Your task to perform on an android device: Open the calendar and show me this week's events? Image 0: 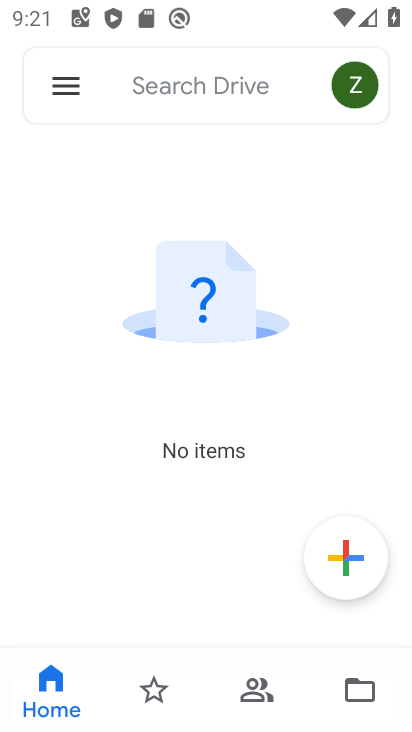
Step 0: press back button
Your task to perform on an android device: Open the calendar and show me this week's events? Image 1: 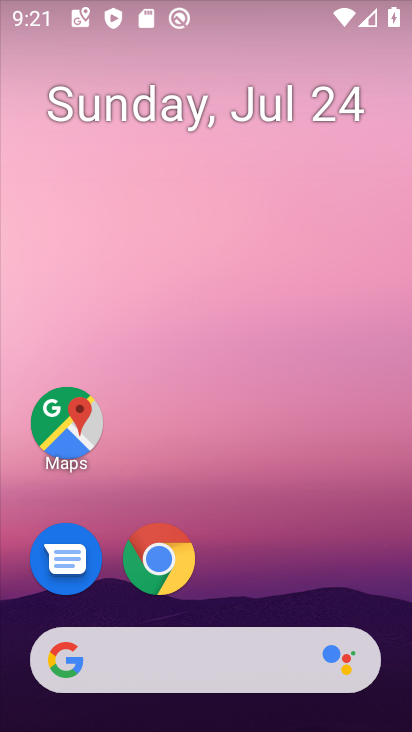
Step 1: drag from (216, 551) to (221, 40)
Your task to perform on an android device: Open the calendar and show me this week's events? Image 2: 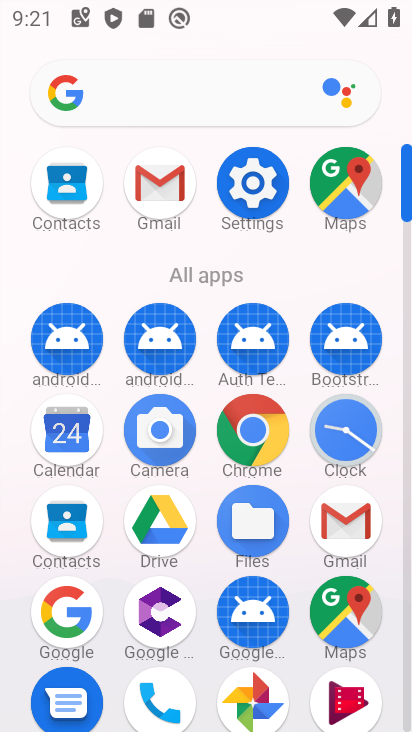
Step 2: click (61, 495)
Your task to perform on an android device: Open the calendar and show me this week's events? Image 3: 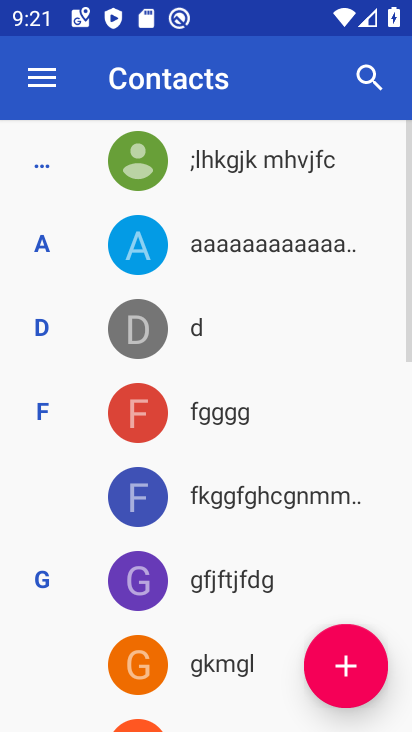
Step 3: press back button
Your task to perform on an android device: Open the calendar and show me this week's events? Image 4: 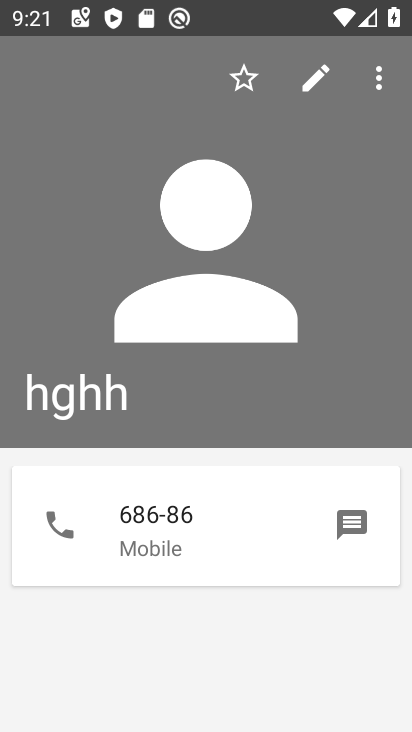
Step 4: press back button
Your task to perform on an android device: Open the calendar and show me this week's events? Image 5: 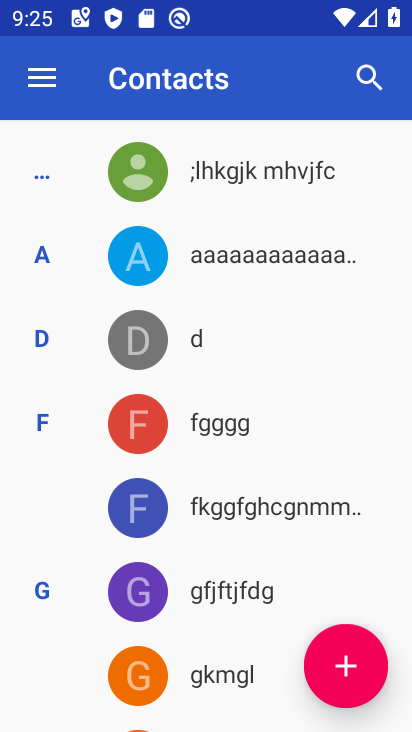
Step 5: press back button
Your task to perform on an android device: Open the calendar and show me this week's events? Image 6: 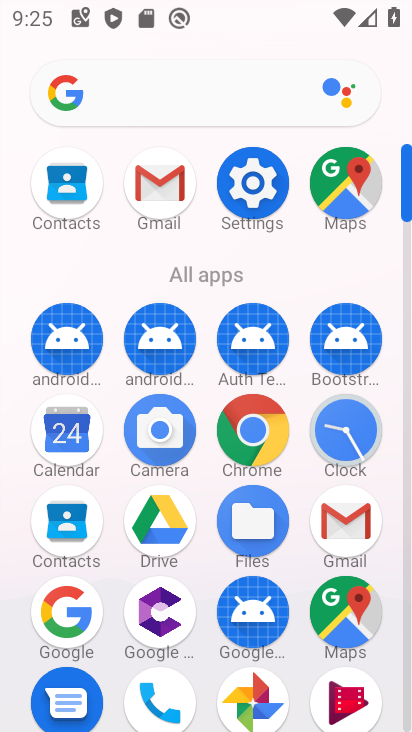
Step 6: click (58, 451)
Your task to perform on an android device: Open the calendar and show me this week's events? Image 7: 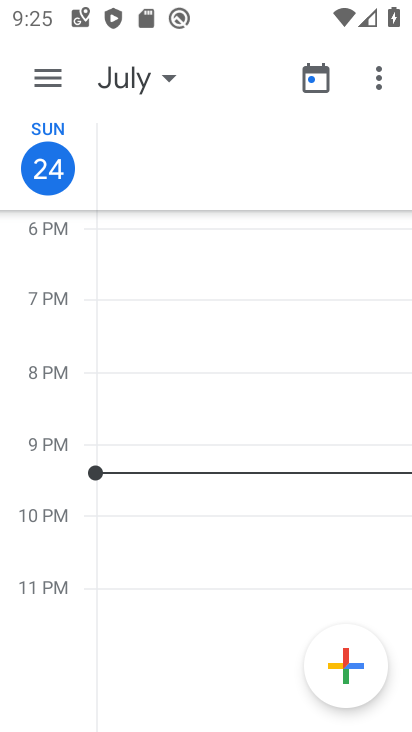
Step 7: click (37, 63)
Your task to perform on an android device: Open the calendar and show me this week's events? Image 8: 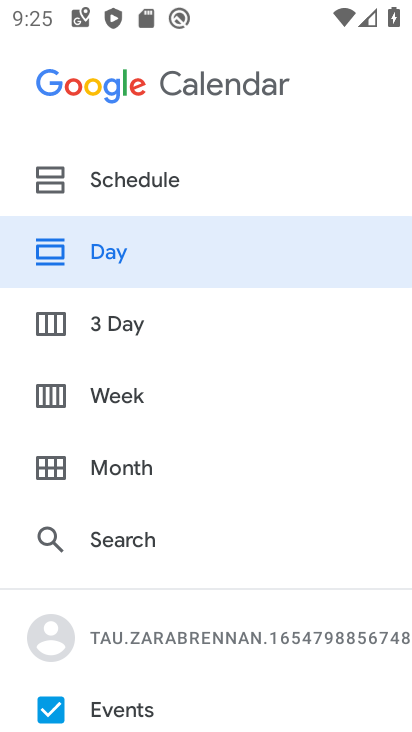
Step 8: click (106, 173)
Your task to perform on an android device: Open the calendar and show me this week's events? Image 9: 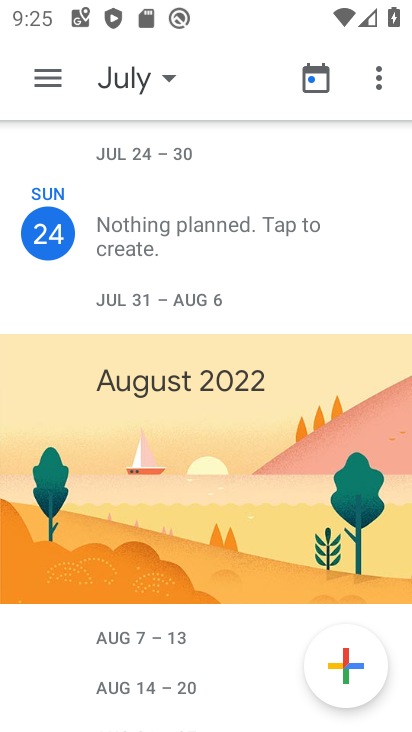
Step 9: task complete